Your task to perform on an android device: Open calendar and show me the fourth week of next month Image 0: 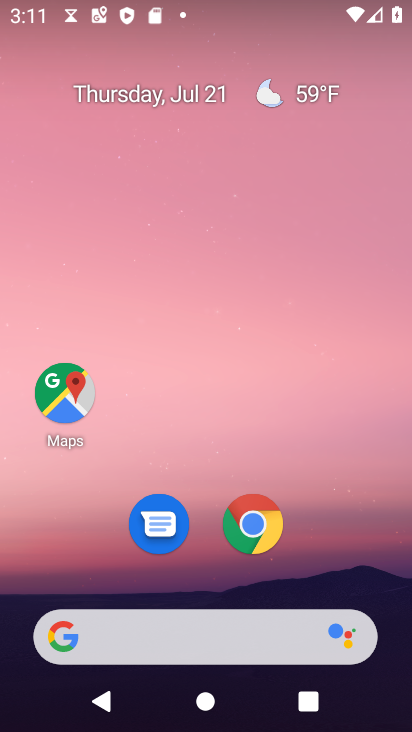
Step 0: press home button
Your task to perform on an android device: Open calendar and show me the fourth week of next month Image 1: 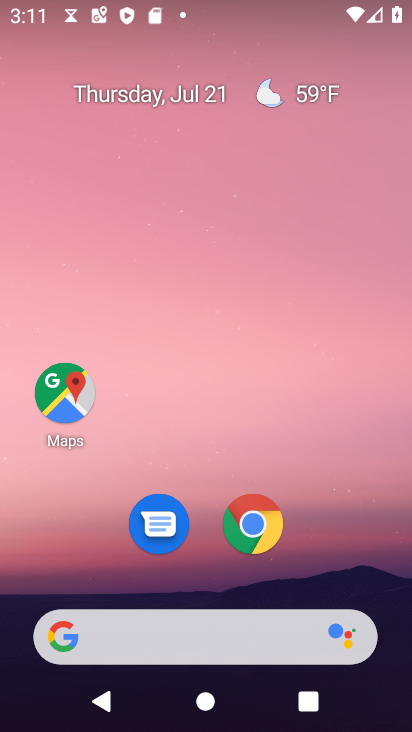
Step 1: drag from (217, 621) to (343, 35)
Your task to perform on an android device: Open calendar and show me the fourth week of next month Image 2: 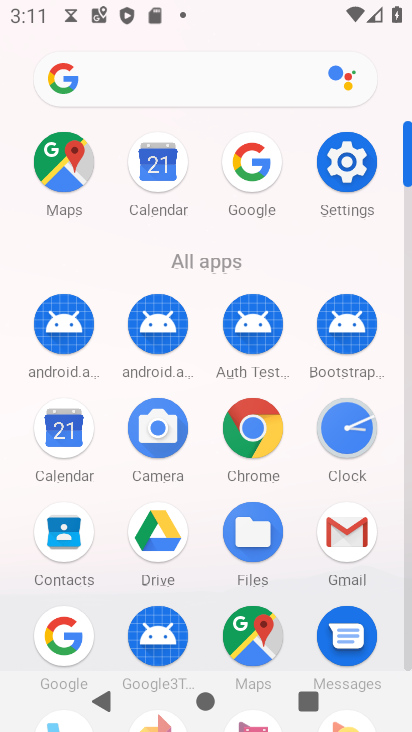
Step 2: click (155, 166)
Your task to perform on an android device: Open calendar and show me the fourth week of next month Image 3: 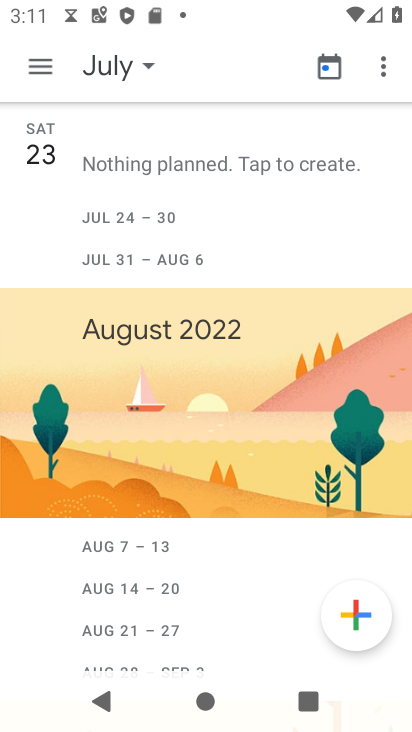
Step 3: click (113, 64)
Your task to perform on an android device: Open calendar and show me the fourth week of next month Image 4: 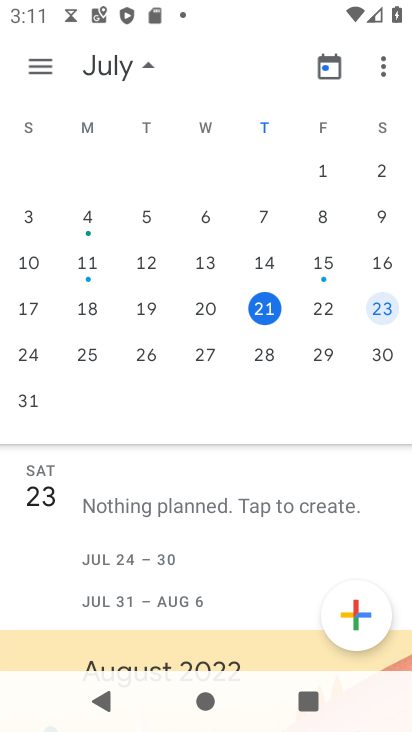
Step 4: drag from (364, 267) to (3, 242)
Your task to perform on an android device: Open calendar and show me the fourth week of next month Image 5: 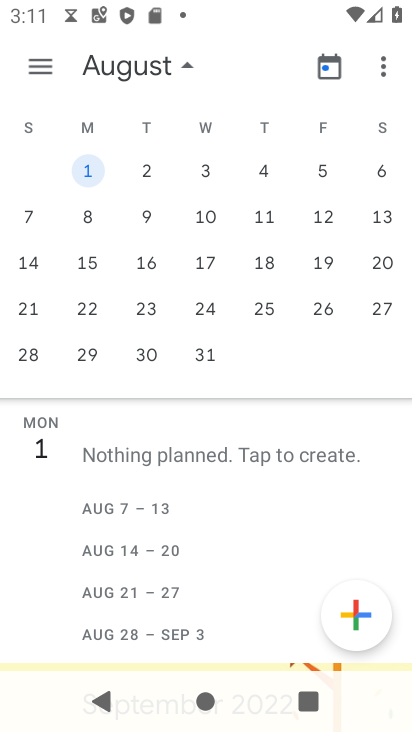
Step 5: click (30, 312)
Your task to perform on an android device: Open calendar and show me the fourth week of next month Image 6: 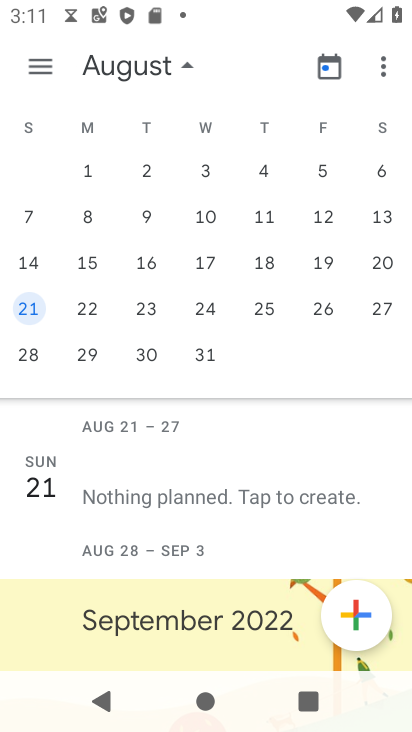
Step 6: click (51, 65)
Your task to perform on an android device: Open calendar and show me the fourth week of next month Image 7: 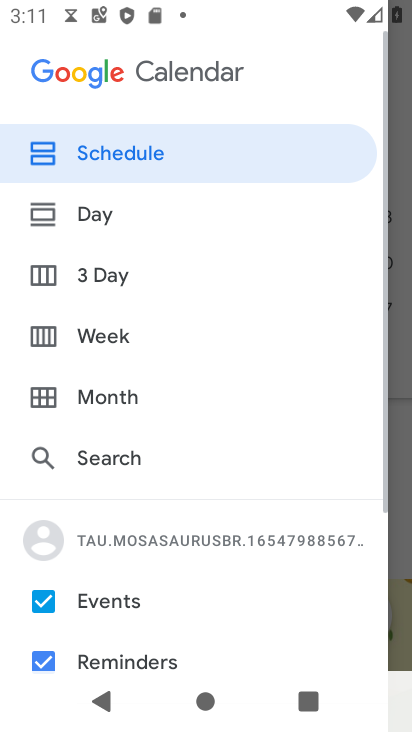
Step 7: click (102, 332)
Your task to perform on an android device: Open calendar and show me the fourth week of next month Image 8: 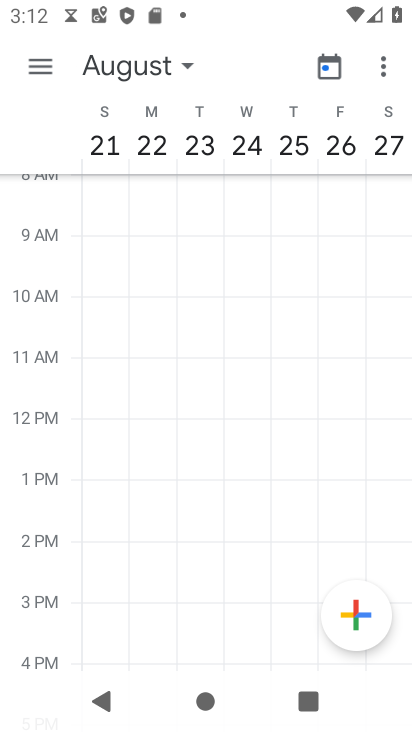
Step 8: task complete